Your task to perform on an android device: turn on showing notifications on the lock screen Image 0: 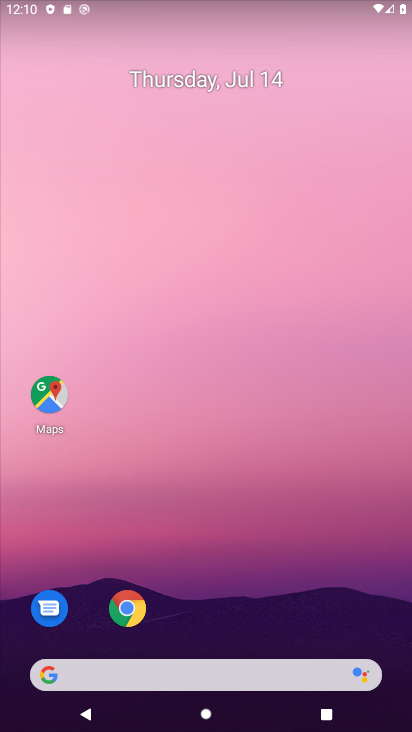
Step 0: drag from (282, 686) to (228, 151)
Your task to perform on an android device: turn on showing notifications on the lock screen Image 1: 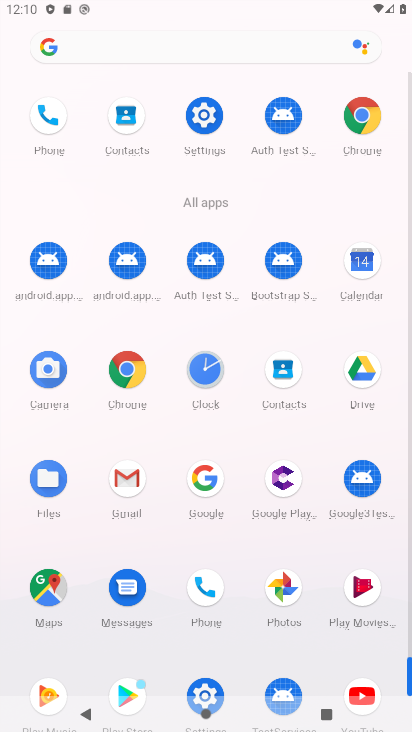
Step 1: click (205, 116)
Your task to perform on an android device: turn on showing notifications on the lock screen Image 2: 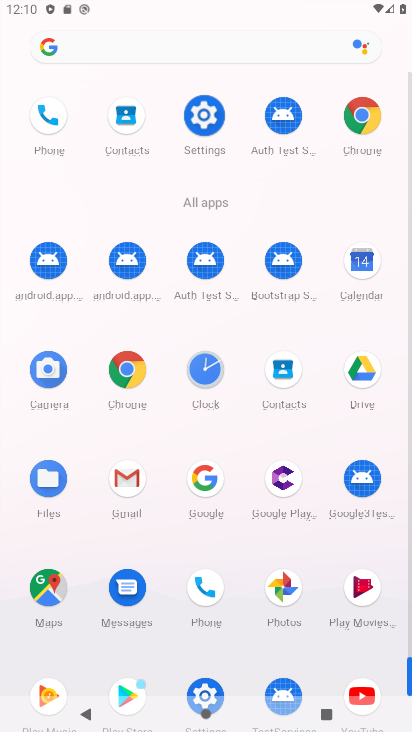
Step 2: click (204, 108)
Your task to perform on an android device: turn on showing notifications on the lock screen Image 3: 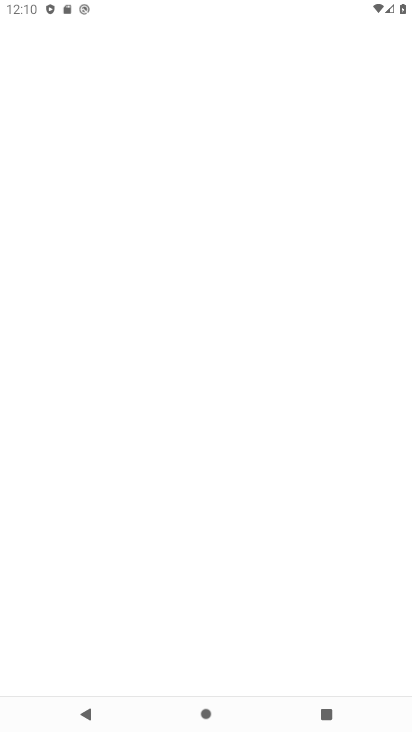
Step 3: click (204, 108)
Your task to perform on an android device: turn on showing notifications on the lock screen Image 4: 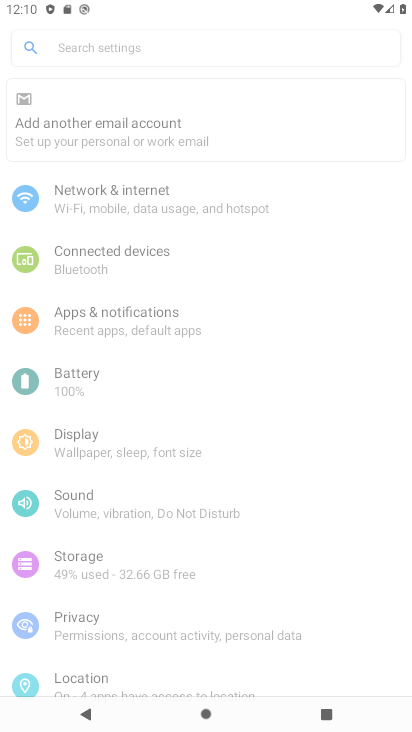
Step 4: click (204, 108)
Your task to perform on an android device: turn on showing notifications on the lock screen Image 5: 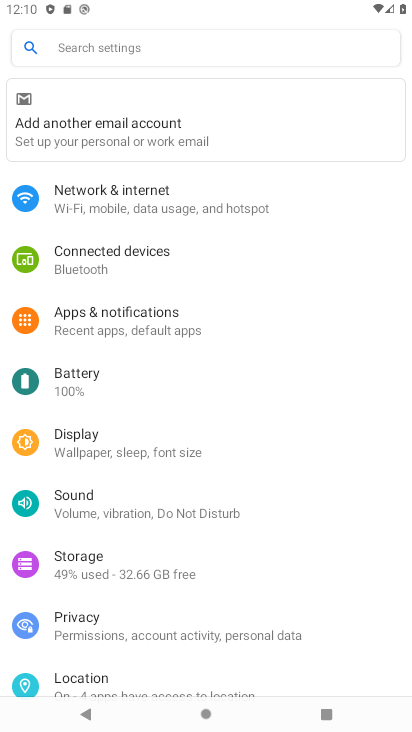
Step 5: click (104, 314)
Your task to perform on an android device: turn on showing notifications on the lock screen Image 6: 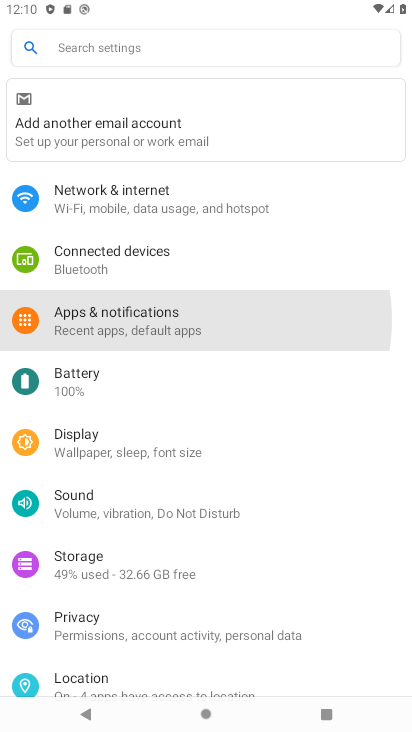
Step 6: click (104, 314)
Your task to perform on an android device: turn on showing notifications on the lock screen Image 7: 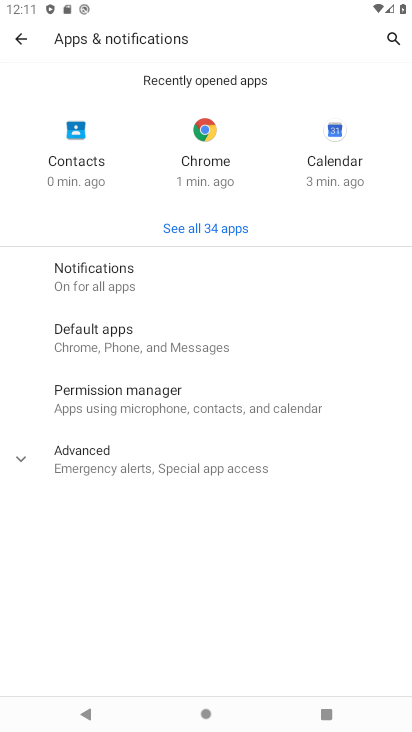
Step 7: click (82, 269)
Your task to perform on an android device: turn on showing notifications on the lock screen Image 8: 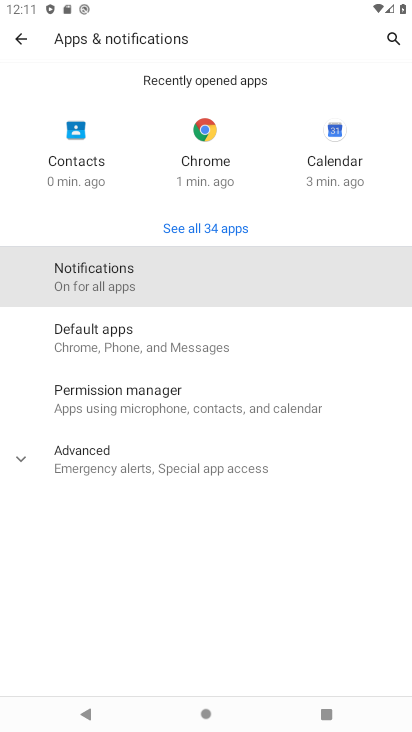
Step 8: click (83, 271)
Your task to perform on an android device: turn on showing notifications on the lock screen Image 9: 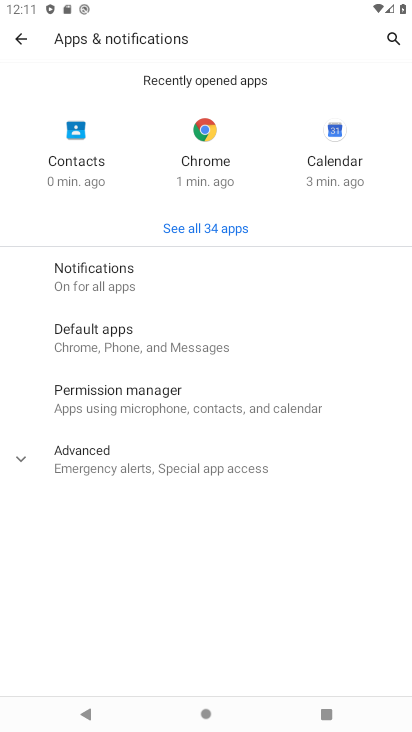
Step 9: click (83, 271)
Your task to perform on an android device: turn on showing notifications on the lock screen Image 10: 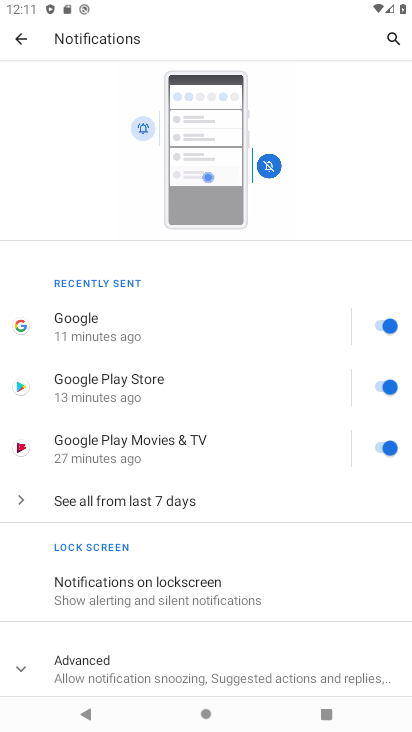
Step 10: click (155, 589)
Your task to perform on an android device: turn on showing notifications on the lock screen Image 11: 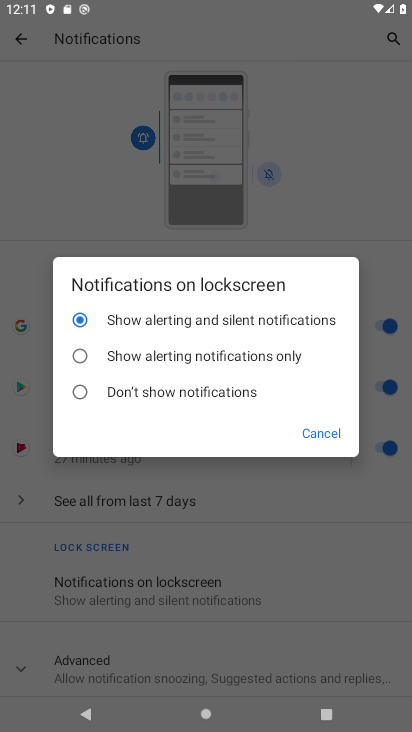
Step 11: click (319, 428)
Your task to perform on an android device: turn on showing notifications on the lock screen Image 12: 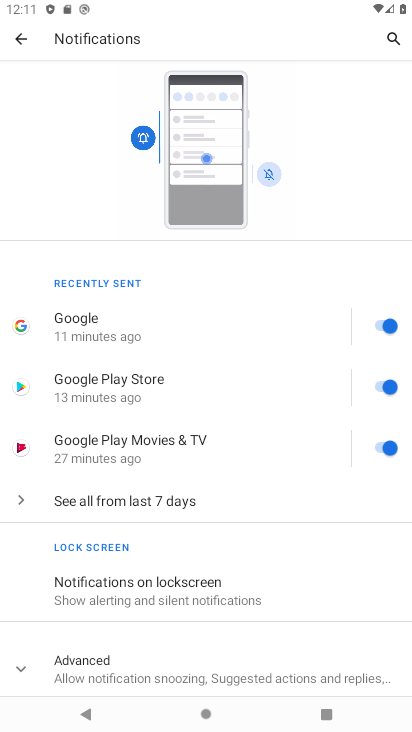
Step 12: task complete